Your task to perform on an android device: open app "VLC for Android" Image 0: 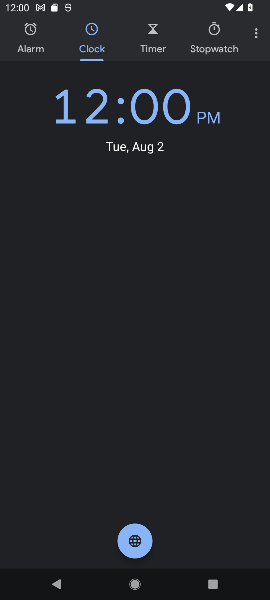
Step 0: press back button
Your task to perform on an android device: open app "VLC for Android" Image 1: 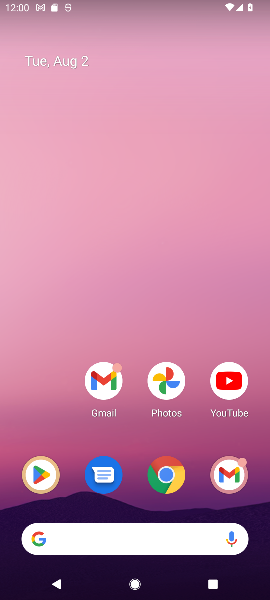
Step 1: click (37, 470)
Your task to perform on an android device: open app "VLC for Android" Image 2: 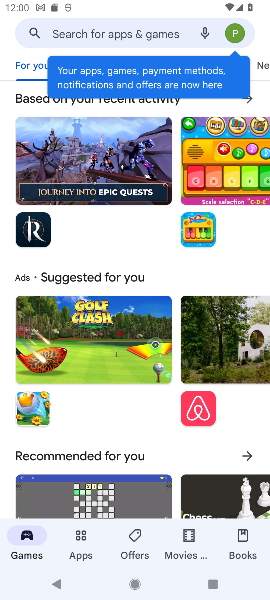
Step 2: click (111, 28)
Your task to perform on an android device: open app "VLC for Android" Image 3: 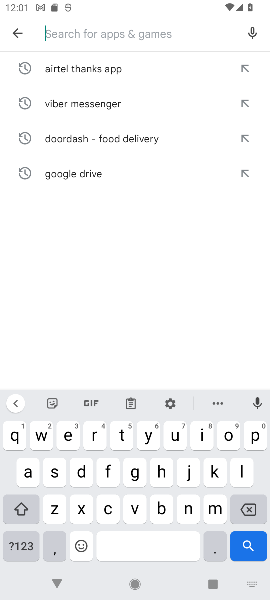
Step 3: type "Airtel Thanks"
Your task to perform on an android device: open app "VLC for Android" Image 4: 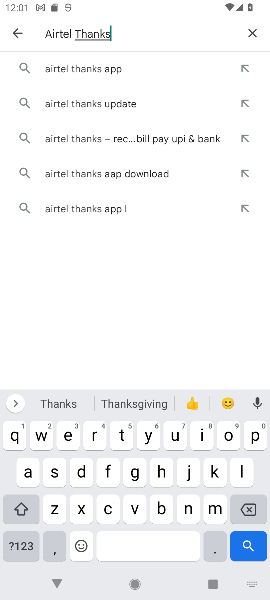
Step 4: type "VLC for Android"
Your task to perform on an android device: open app "VLC for Android" Image 5: 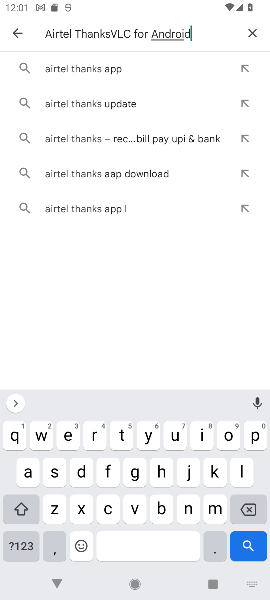
Step 5: type ""
Your task to perform on an android device: open app "VLC for Android" Image 6: 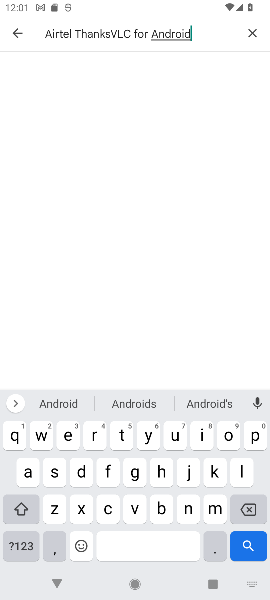
Step 6: click (257, 28)
Your task to perform on an android device: open app "VLC for Android" Image 7: 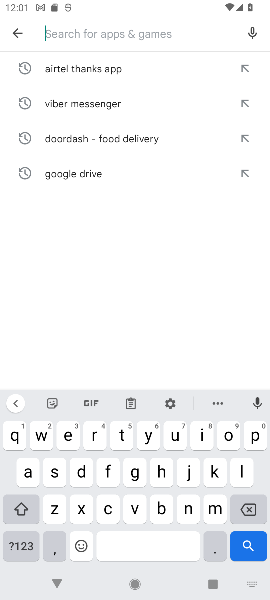
Step 7: type "VLC for Android"
Your task to perform on an android device: open app "VLC for Android" Image 8: 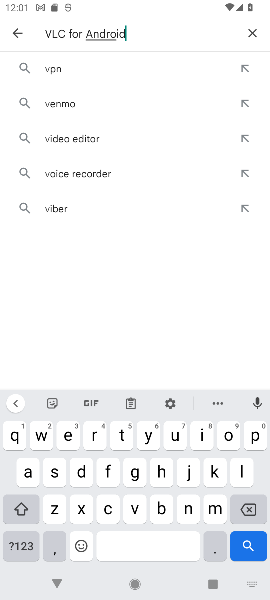
Step 8: type ""
Your task to perform on an android device: open app "VLC for Android" Image 9: 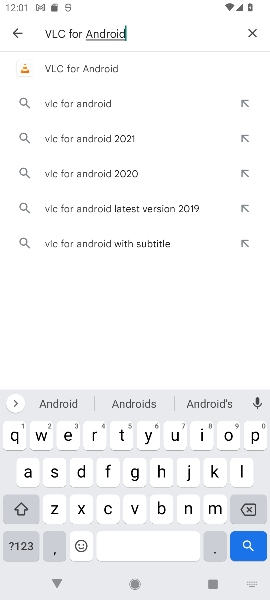
Step 9: click (58, 66)
Your task to perform on an android device: open app "VLC for Android" Image 10: 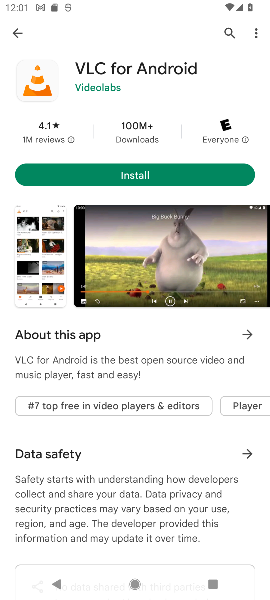
Step 10: task complete